Your task to perform on an android device: Open eBay Image 0: 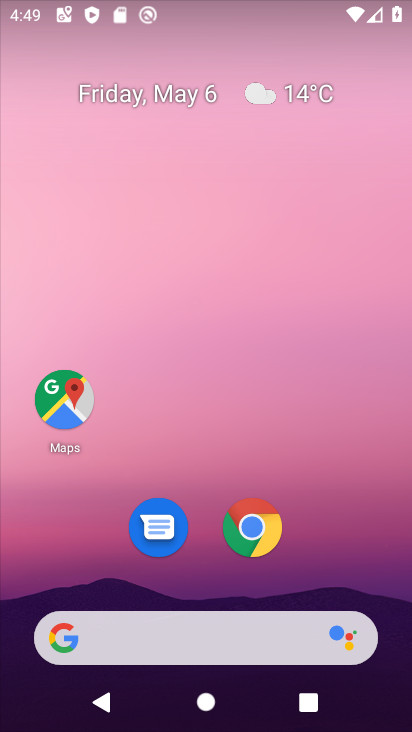
Step 0: click (217, 508)
Your task to perform on an android device: Open eBay Image 1: 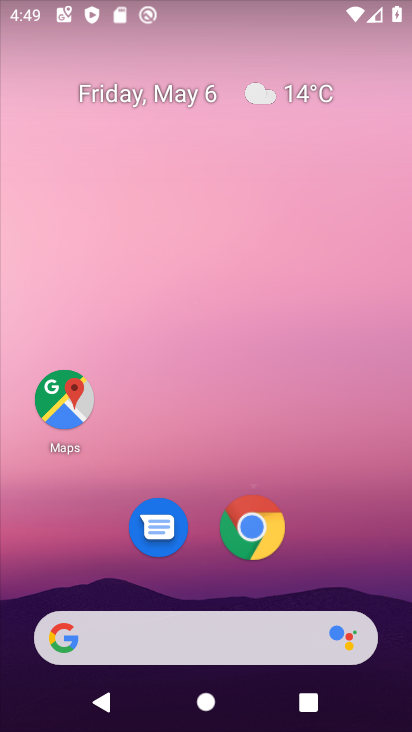
Step 1: click (236, 523)
Your task to perform on an android device: Open eBay Image 2: 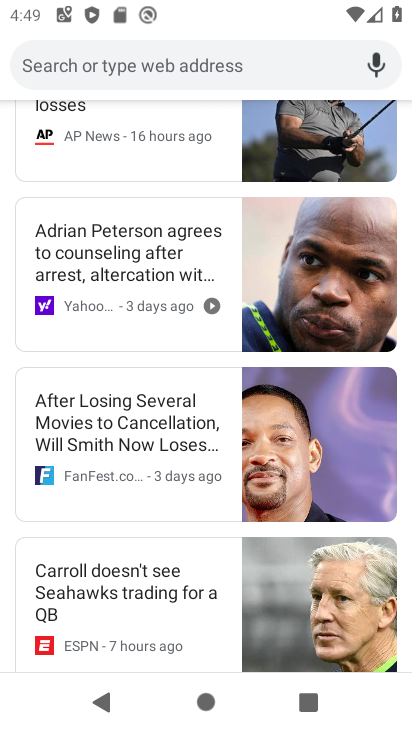
Step 2: drag from (153, 218) to (193, 538)
Your task to perform on an android device: Open eBay Image 3: 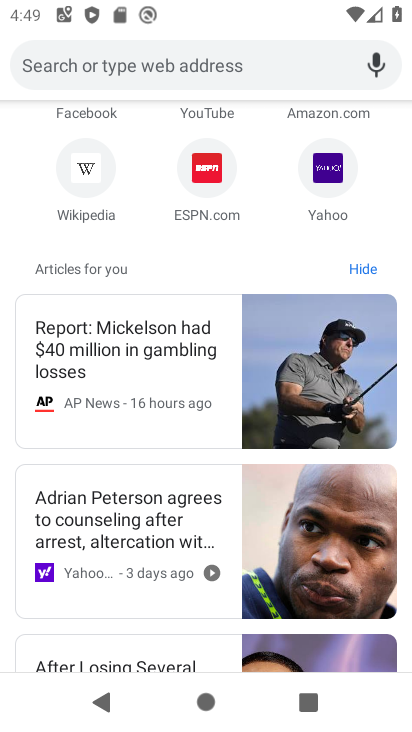
Step 3: drag from (169, 221) to (205, 562)
Your task to perform on an android device: Open eBay Image 4: 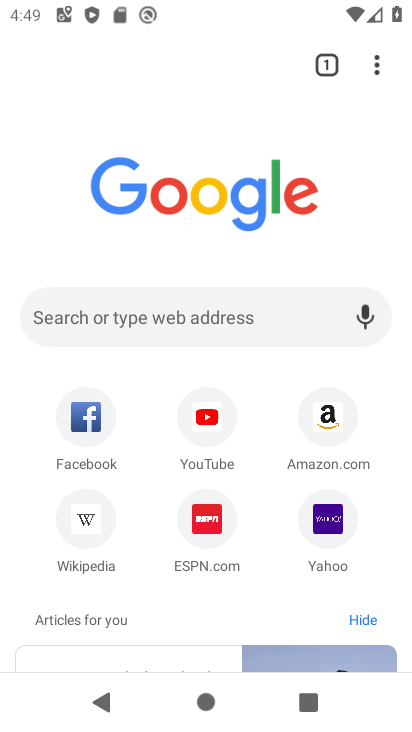
Step 4: click (167, 330)
Your task to perform on an android device: Open eBay Image 5: 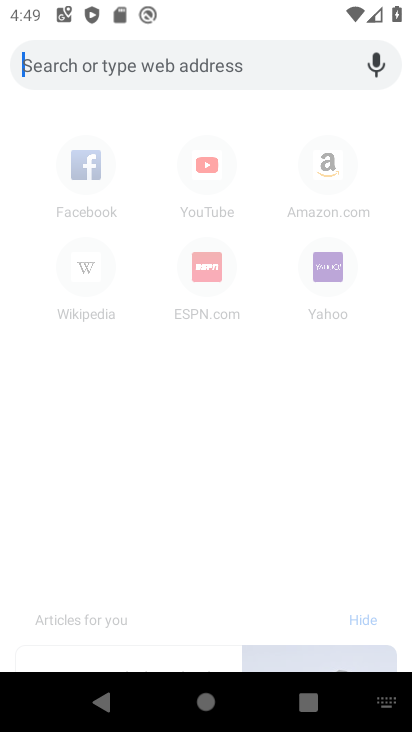
Step 5: type "ebay"
Your task to perform on an android device: Open eBay Image 6: 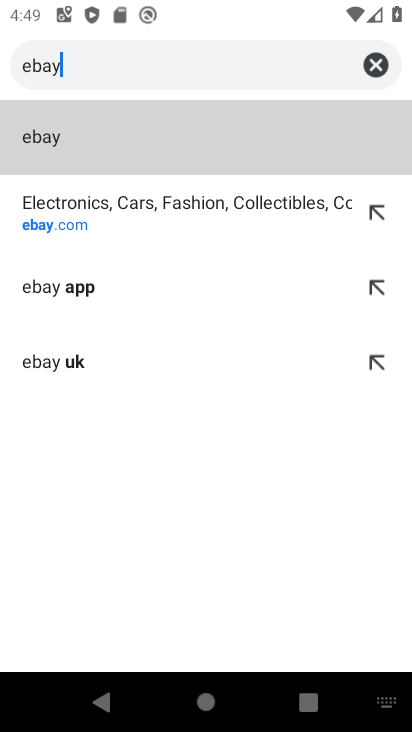
Step 6: click (86, 296)
Your task to perform on an android device: Open eBay Image 7: 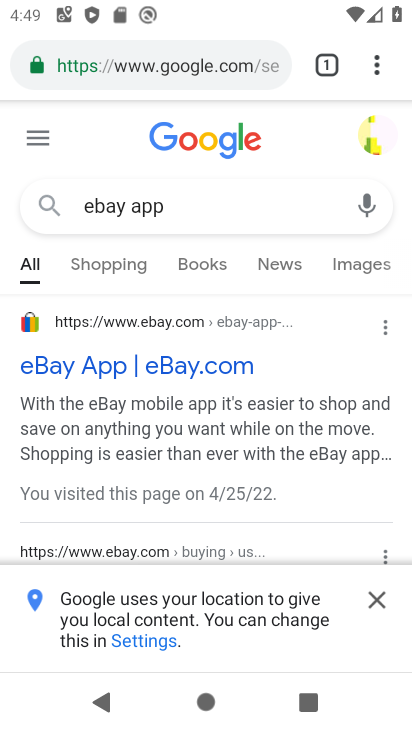
Step 7: click (158, 374)
Your task to perform on an android device: Open eBay Image 8: 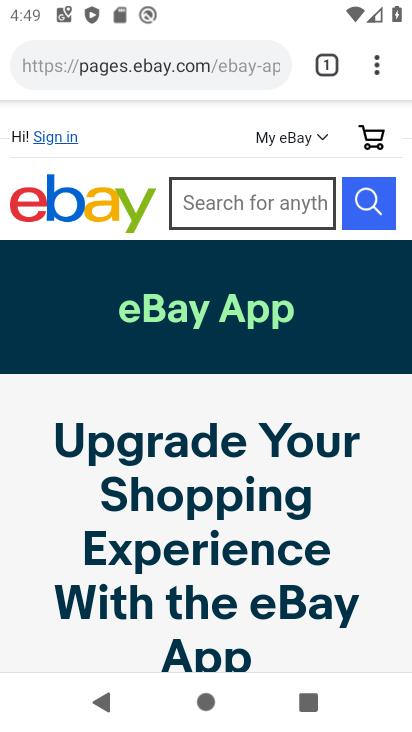
Step 8: task complete